Your task to perform on an android device: add a label to a message in the gmail app Image 0: 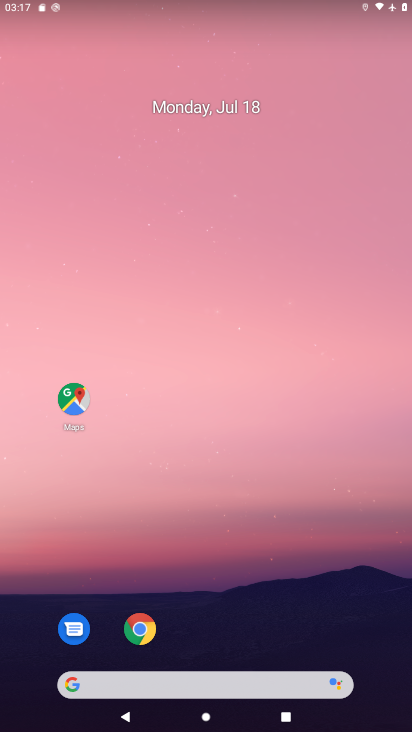
Step 0: drag from (340, 611) to (406, 160)
Your task to perform on an android device: add a label to a message in the gmail app Image 1: 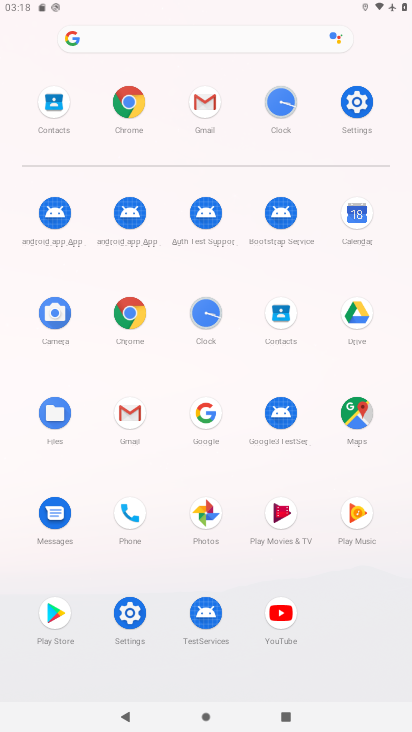
Step 1: click (130, 419)
Your task to perform on an android device: add a label to a message in the gmail app Image 2: 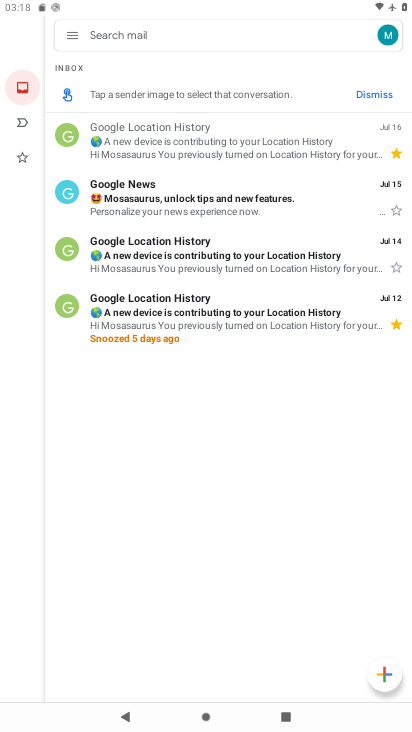
Step 2: click (208, 133)
Your task to perform on an android device: add a label to a message in the gmail app Image 3: 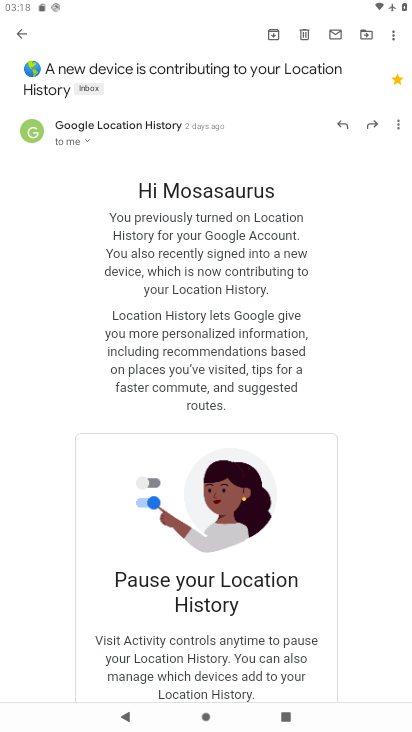
Step 3: click (96, 86)
Your task to perform on an android device: add a label to a message in the gmail app Image 4: 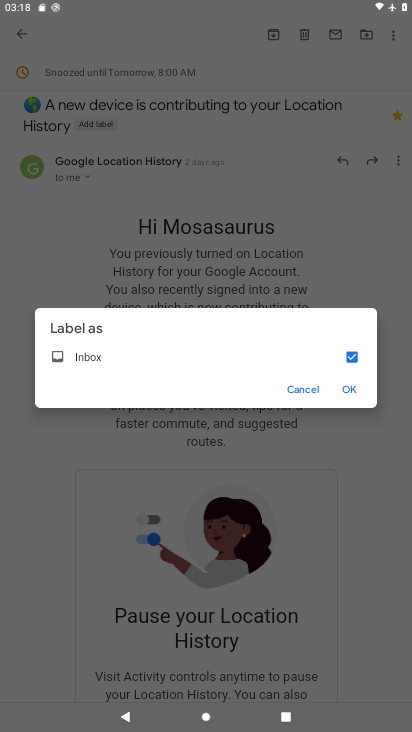
Step 4: click (347, 389)
Your task to perform on an android device: add a label to a message in the gmail app Image 5: 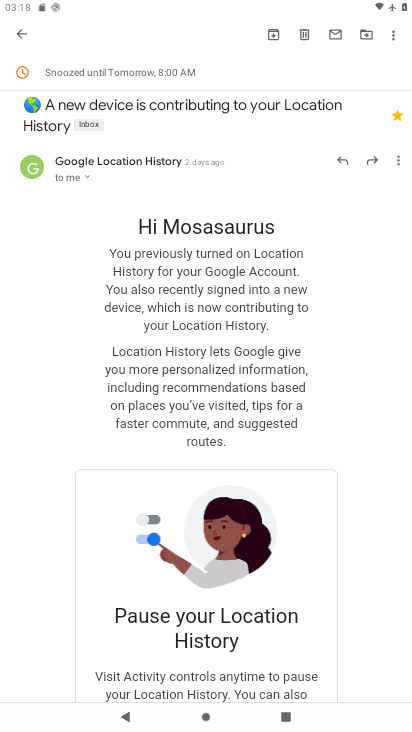
Step 5: click (22, 32)
Your task to perform on an android device: add a label to a message in the gmail app Image 6: 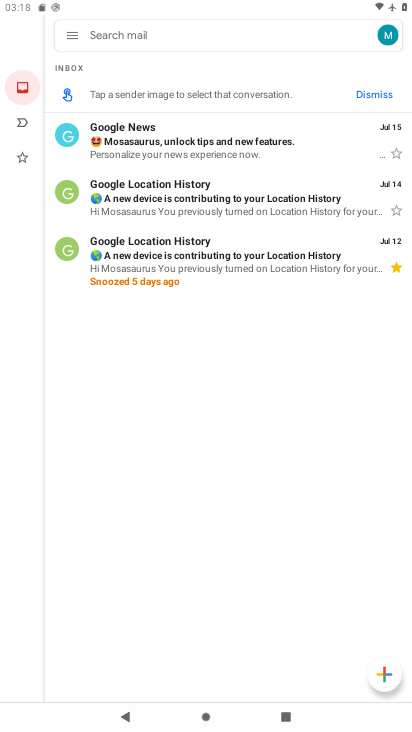
Step 6: task complete